Your task to perform on an android device: Open the web browser Image 0: 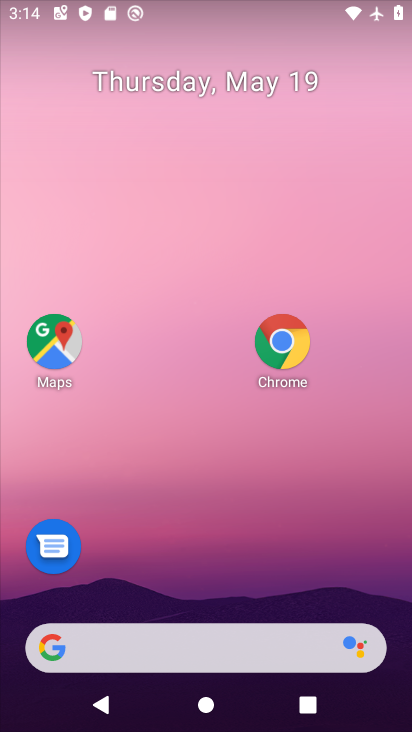
Step 0: click (290, 336)
Your task to perform on an android device: Open the web browser Image 1: 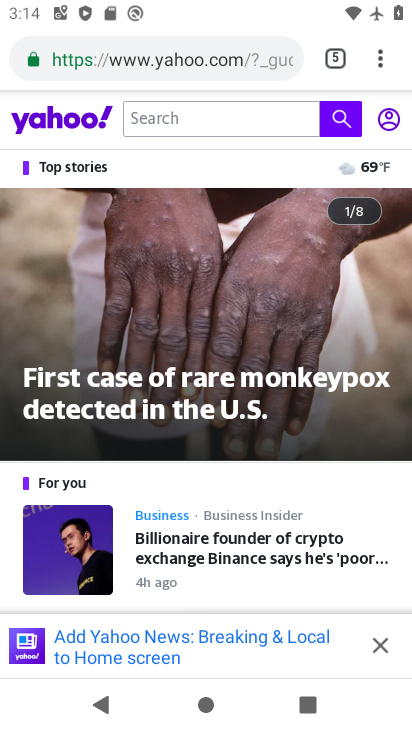
Step 1: task complete